Your task to perform on an android device: uninstall "Truecaller" Image 0: 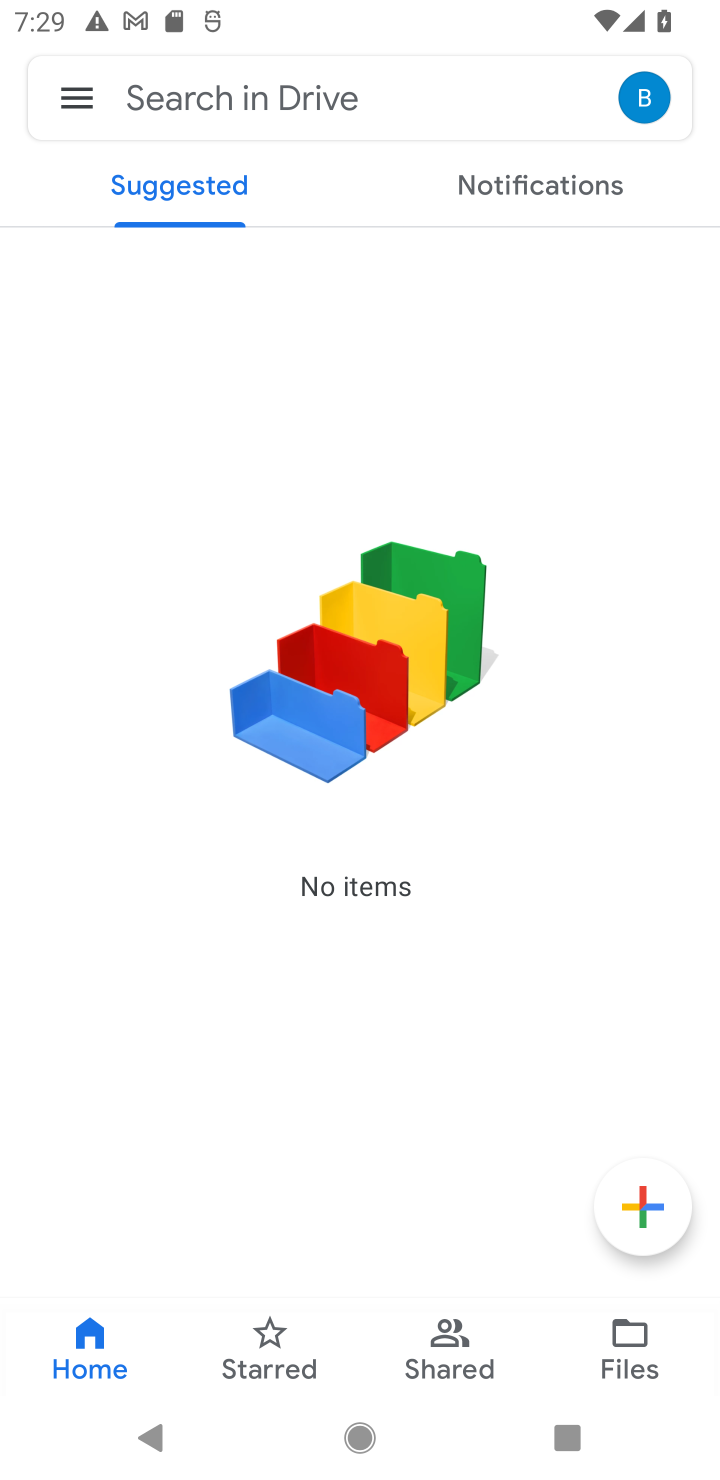
Step 0: press home button
Your task to perform on an android device: uninstall "Truecaller" Image 1: 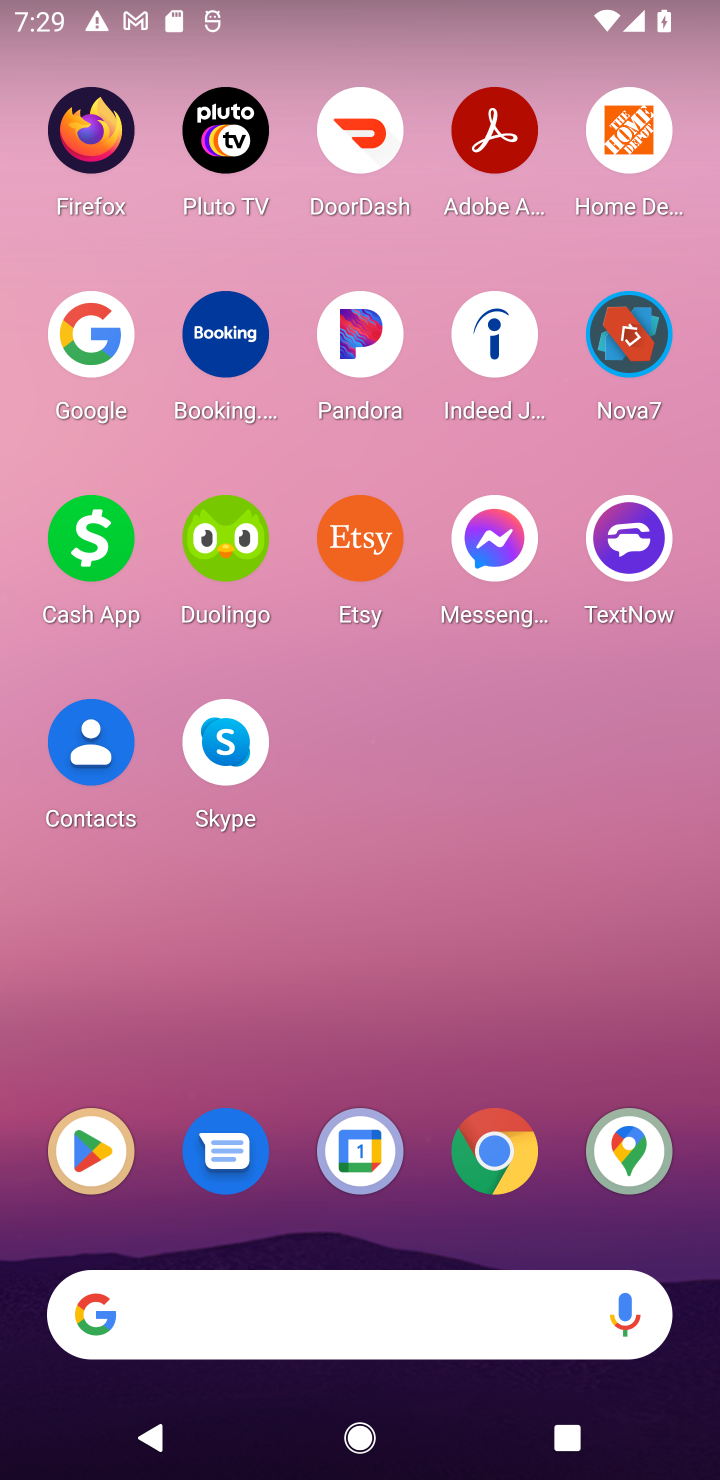
Step 1: drag from (481, 1315) to (411, 190)
Your task to perform on an android device: uninstall "Truecaller" Image 2: 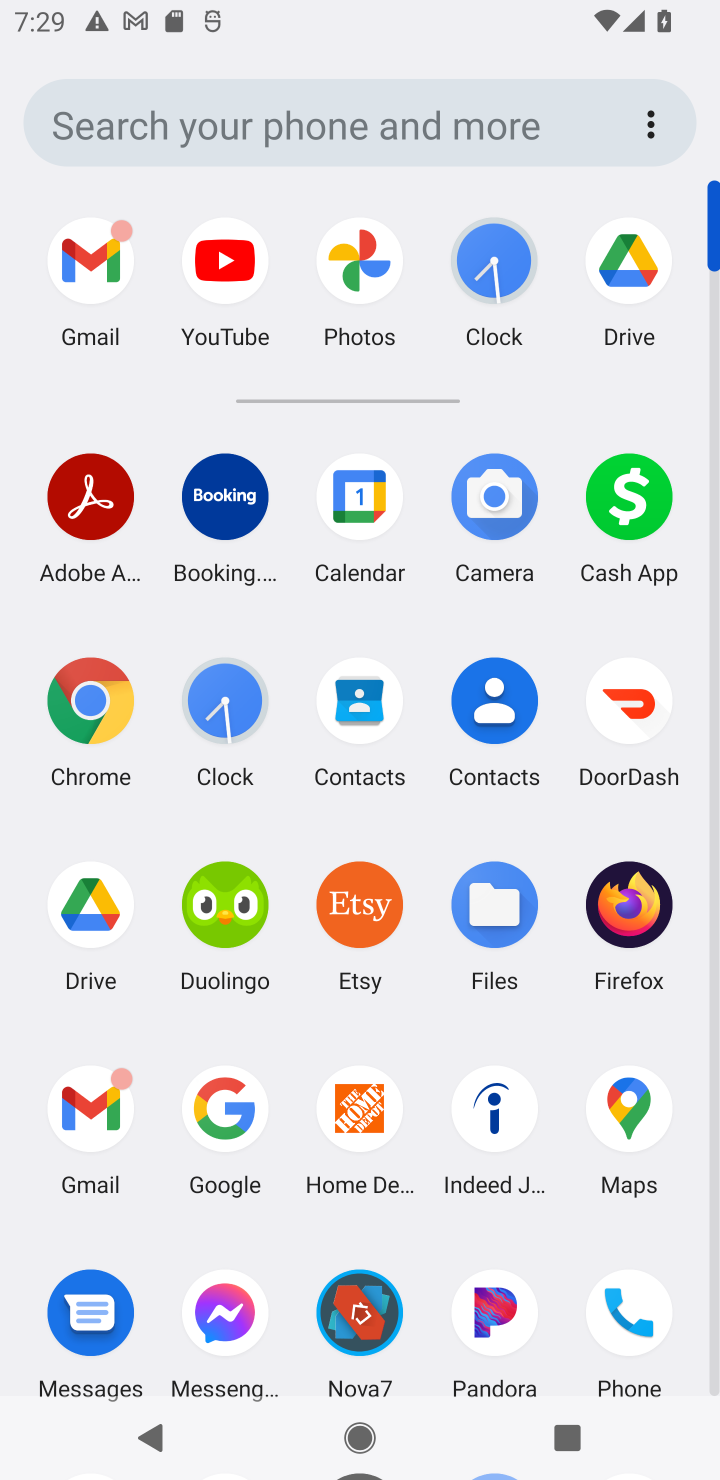
Step 2: drag from (542, 1183) to (559, 526)
Your task to perform on an android device: uninstall "Truecaller" Image 3: 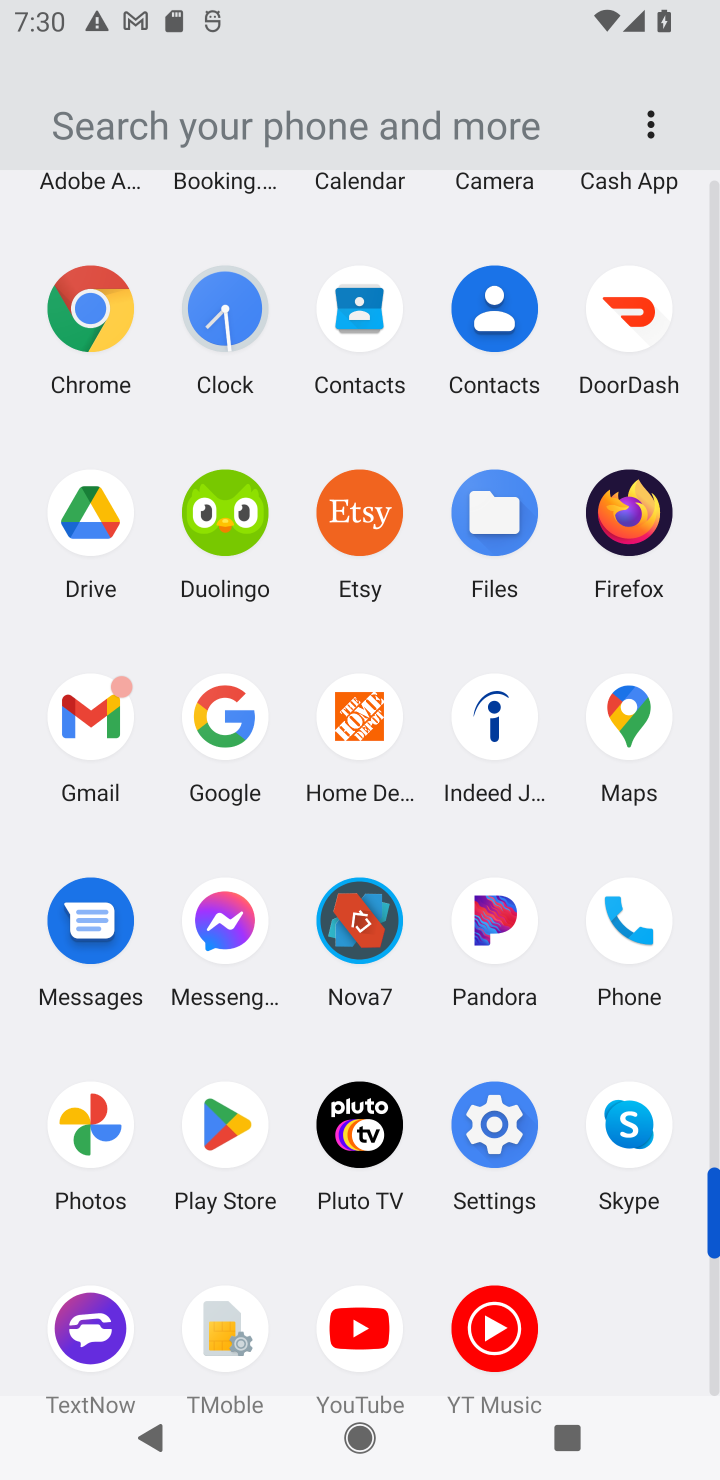
Step 3: click (235, 1126)
Your task to perform on an android device: uninstall "Truecaller" Image 4: 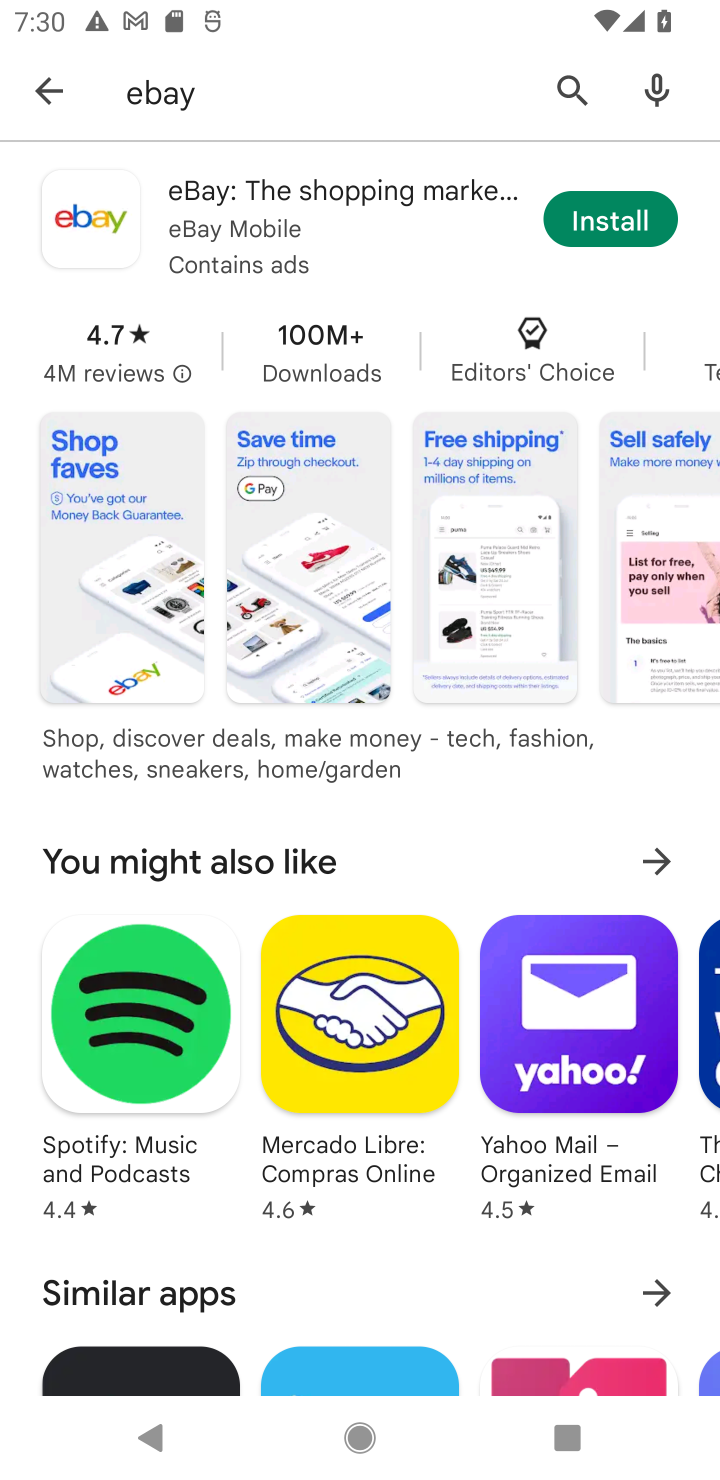
Step 4: click (566, 103)
Your task to perform on an android device: uninstall "Truecaller" Image 5: 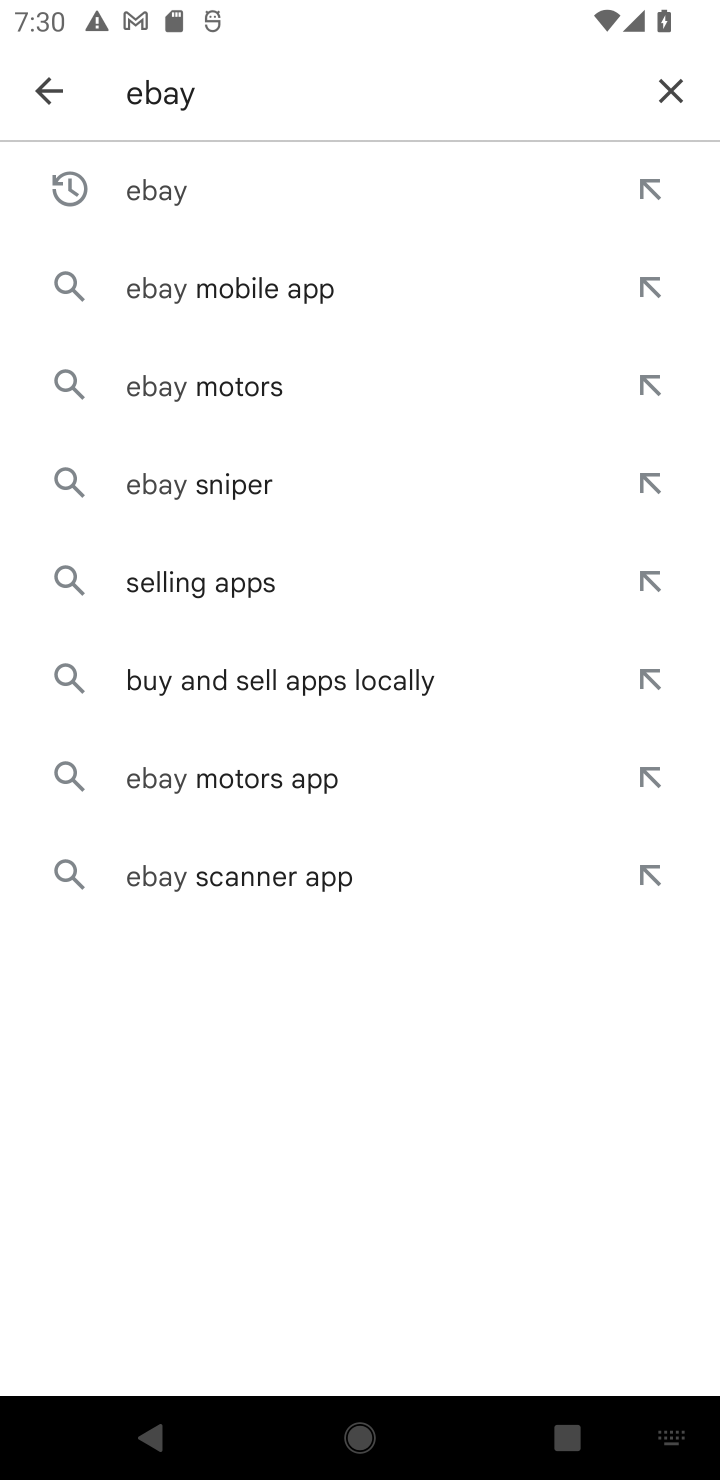
Step 5: click (680, 89)
Your task to perform on an android device: uninstall "Truecaller" Image 6: 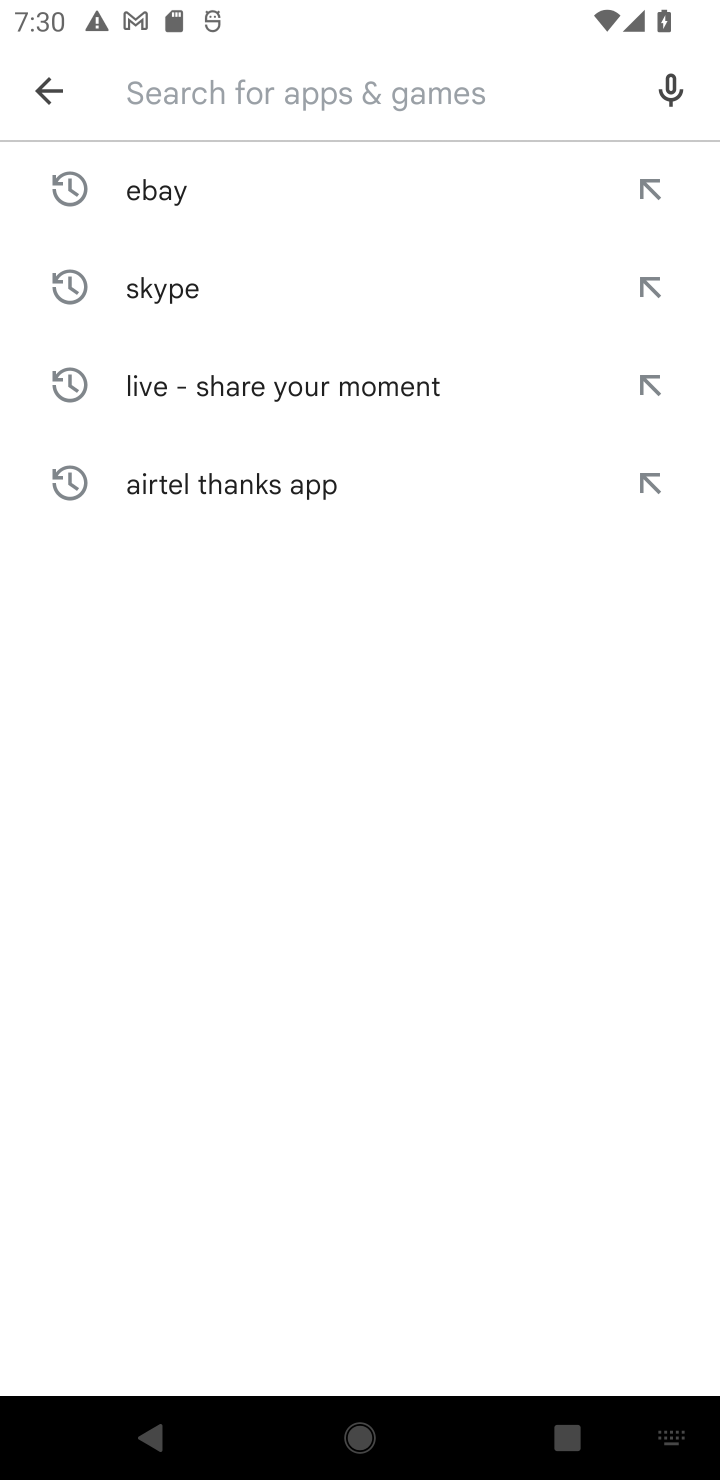
Step 6: type "truecaller"
Your task to perform on an android device: uninstall "Truecaller" Image 7: 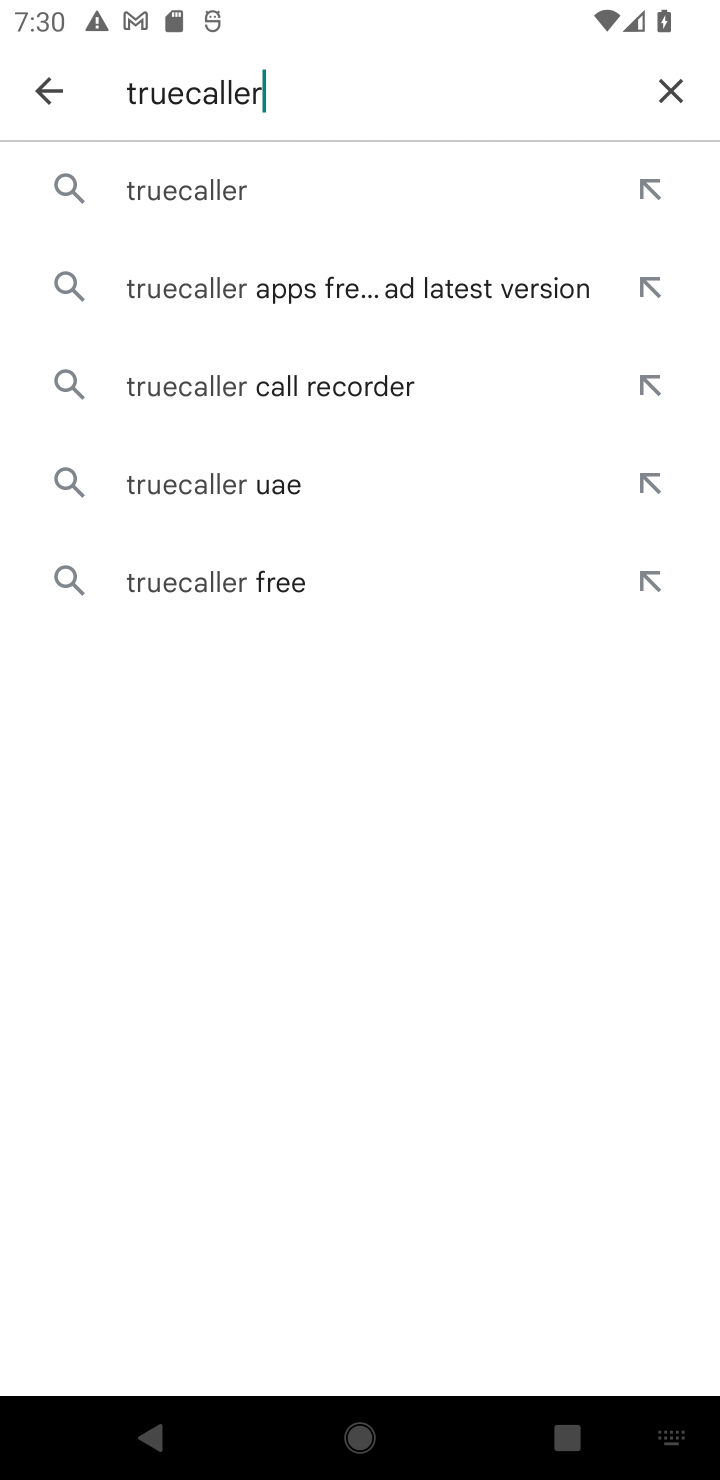
Step 7: click (193, 195)
Your task to perform on an android device: uninstall "Truecaller" Image 8: 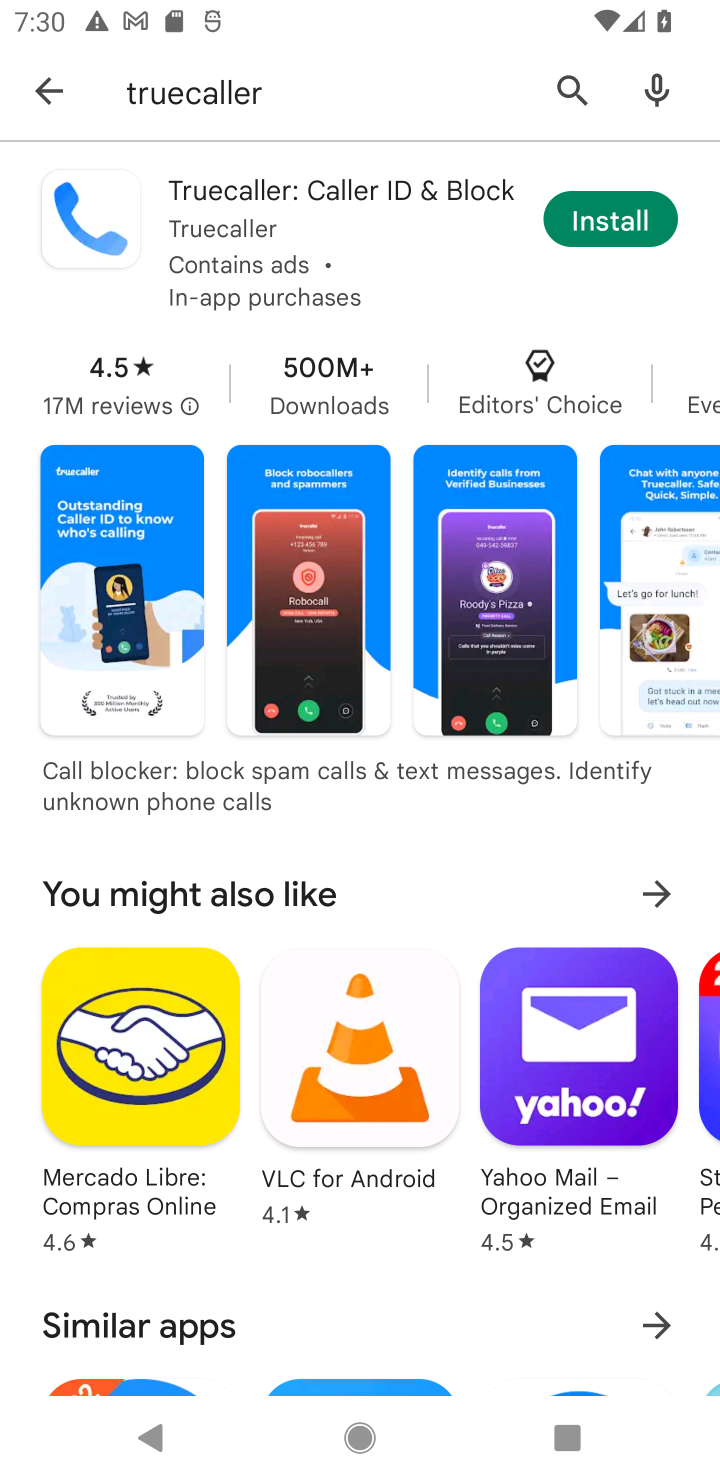
Step 8: task complete